Your task to perform on an android device: toggle airplane mode Image 0: 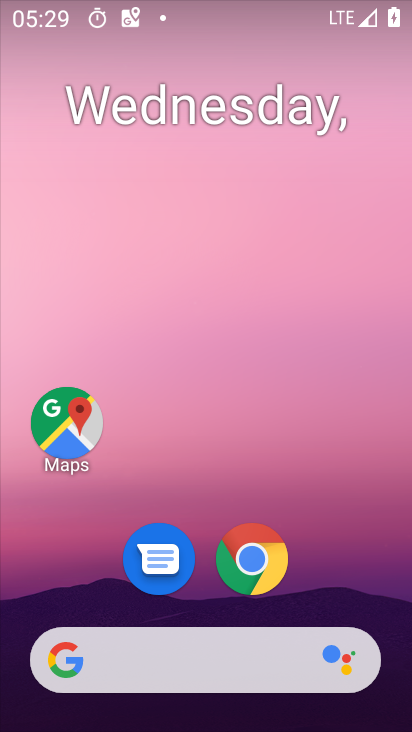
Step 0: drag from (346, 568) to (250, 112)
Your task to perform on an android device: toggle airplane mode Image 1: 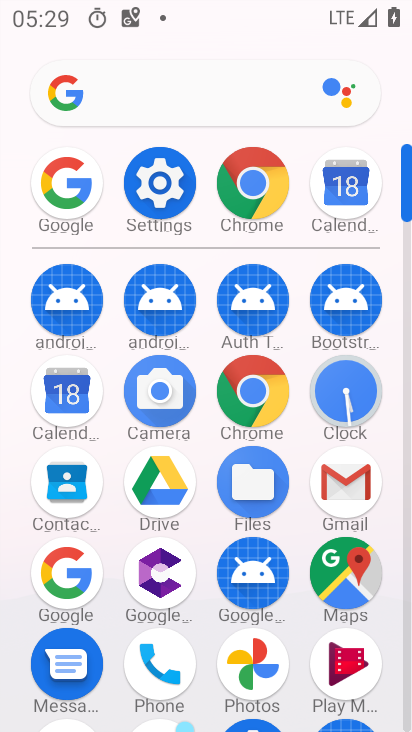
Step 1: click (177, 193)
Your task to perform on an android device: toggle airplane mode Image 2: 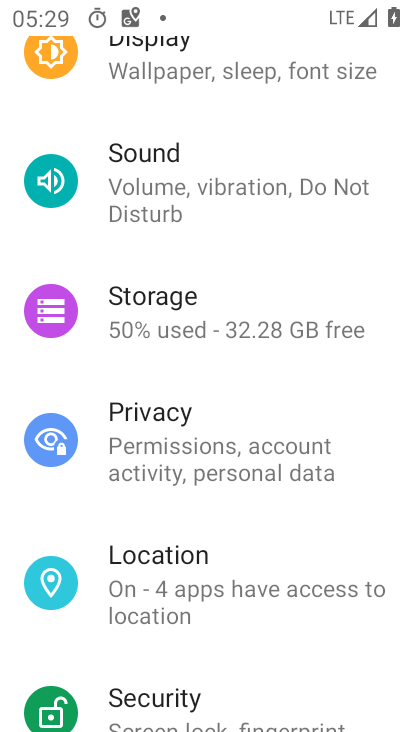
Step 2: drag from (243, 124) to (236, 666)
Your task to perform on an android device: toggle airplane mode Image 3: 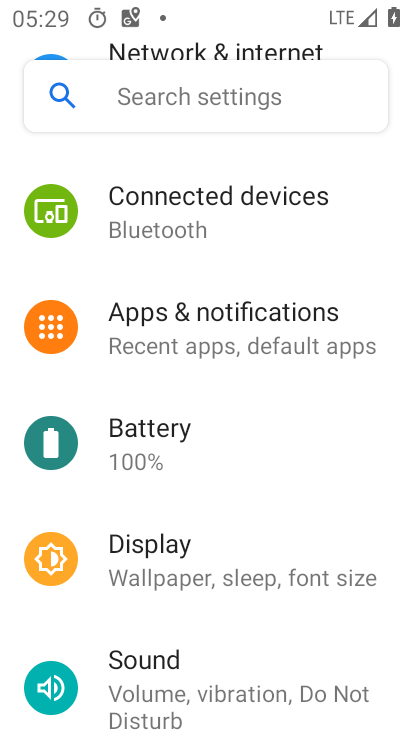
Step 3: drag from (227, 434) to (215, 689)
Your task to perform on an android device: toggle airplane mode Image 4: 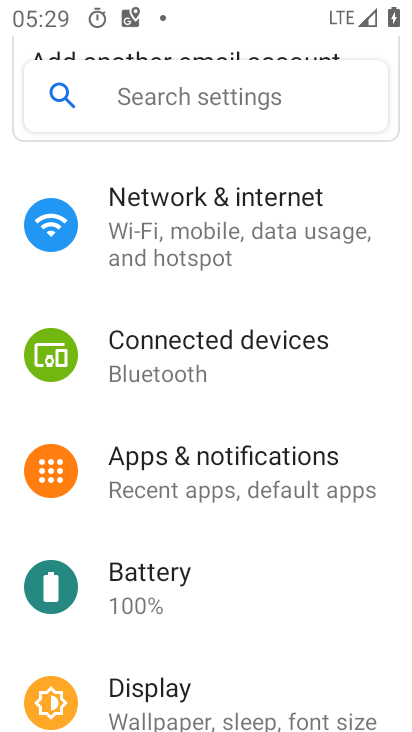
Step 4: click (223, 235)
Your task to perform on an android device: toggle airplane mode Image 5: 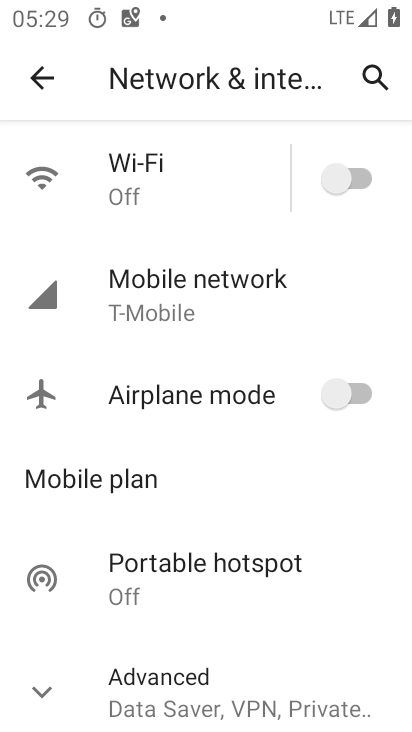
Step 5: click (328, 401)
Your task to perform on an android device: toggle airplane mode Image 6: 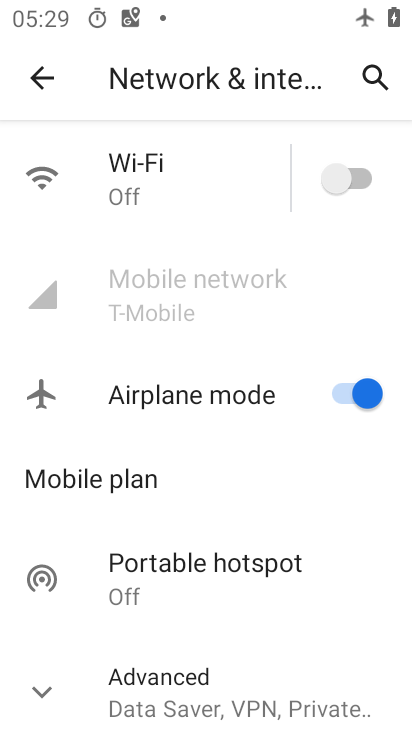
Step 6: task complete